Your task to perform on an android device: check google app version Image 0: 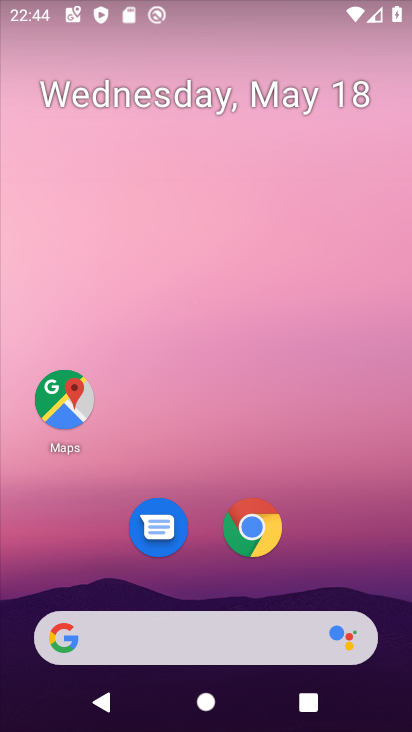
Step 0: click (349, 552)
Your task to perform on an android device: check google app version Image 1: 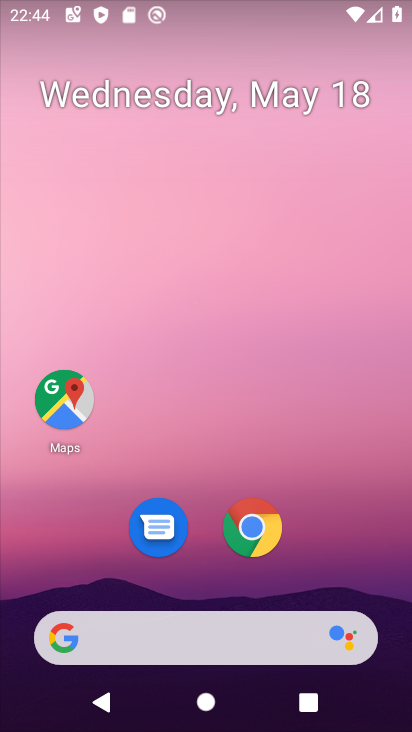
Step 1: click (271, 539)
Your task to perform on an android device: check google app version Image 2: 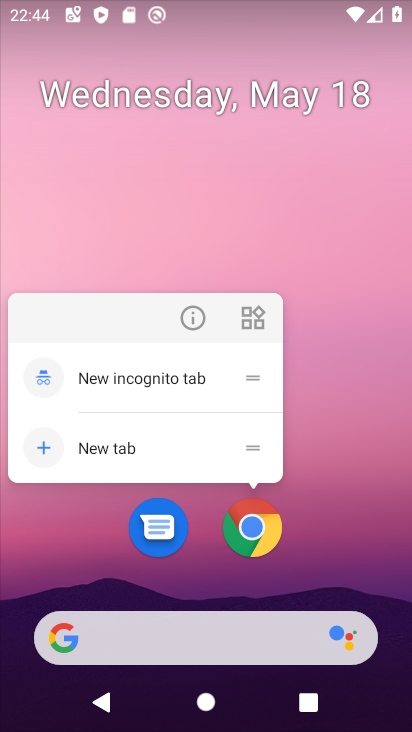
Step 2: click (200, 313)
Your task to perform on an android device: check google app version Image 3: 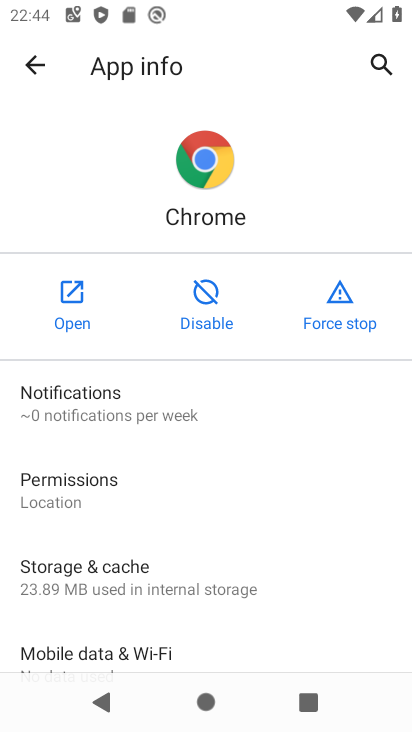
Step 3: drag from (183, 561) to (144, 303)
Your task to perform on an android device: check google app version Image 4: 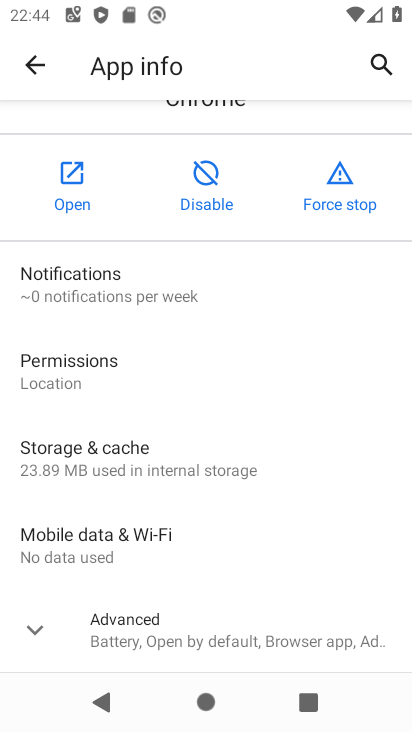
Step 4: drag from (233, 646) to (194, 115)
Your task to perform on an android device: check google app version Image 5: 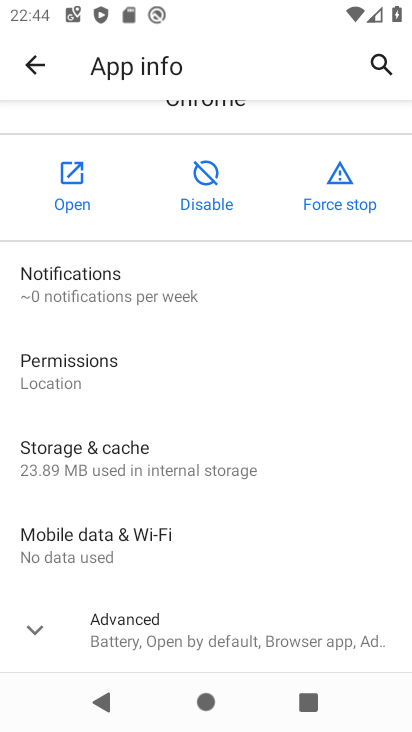
Step 5: click (197, 625)
Your task to perform on an android device: check google app version Image 6: 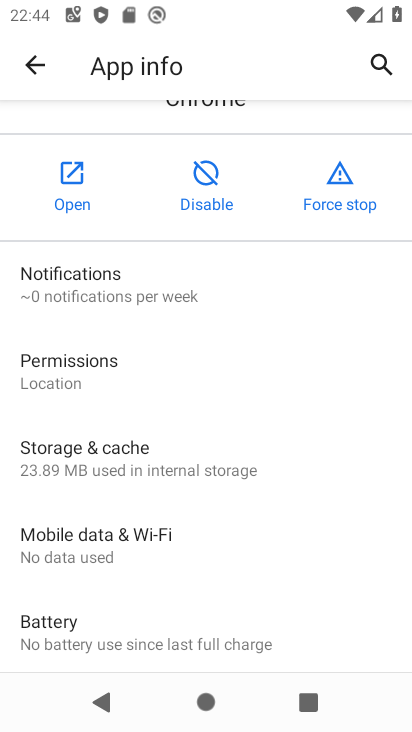
Step 6: task complete